Your task to perform on an android device: turn off airplane mode Image 0: 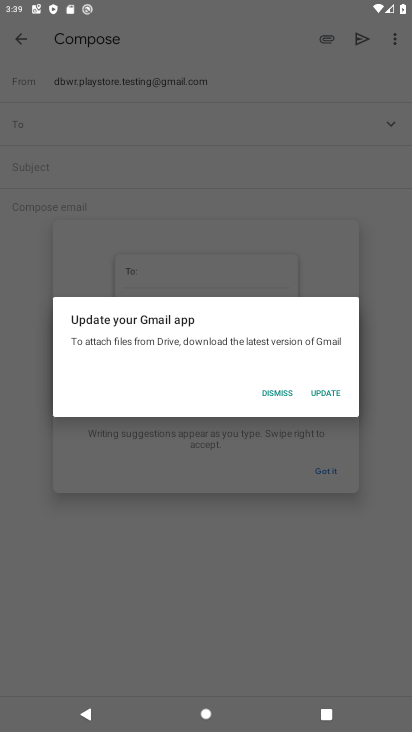
Step 0: drag from (315, 10) to (359, 628)
Your task to perform on an android device: turn off airplane mode Image 1: 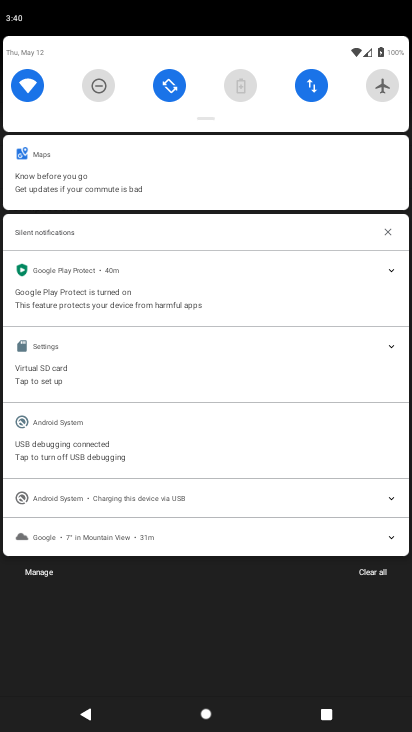
Step 1: task complete